Your task to perform on an android device: star an email in the gmail app Image 0: 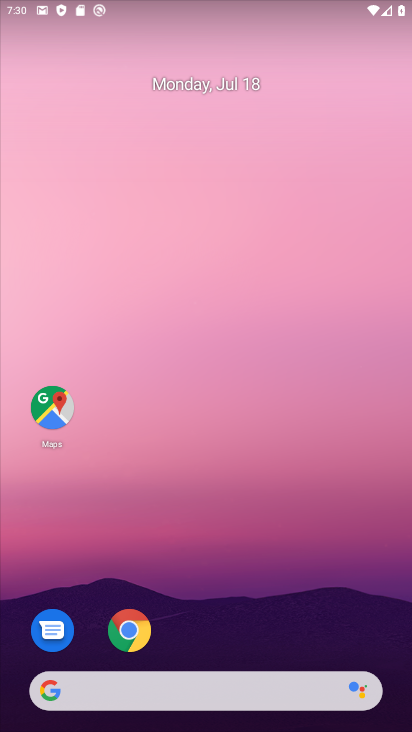
Step 0: drag from (217, 711) to (188, 212)
Your task to perform on an android device: star an email in the gmail app Image 1: 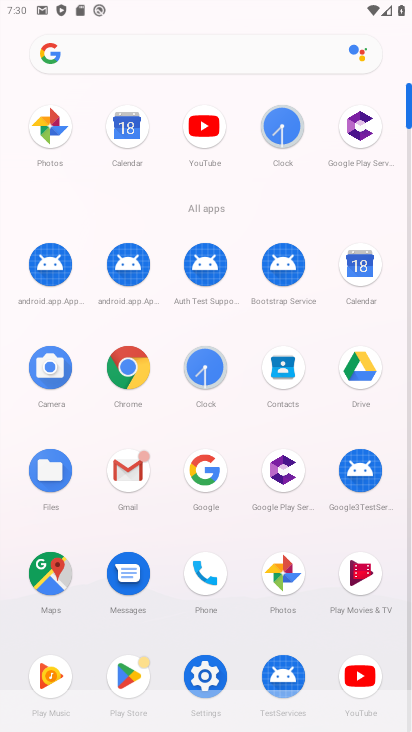
Step 1: click (124, 467)
Your task to perform on an android device: star an email in the gmail app Image 2: 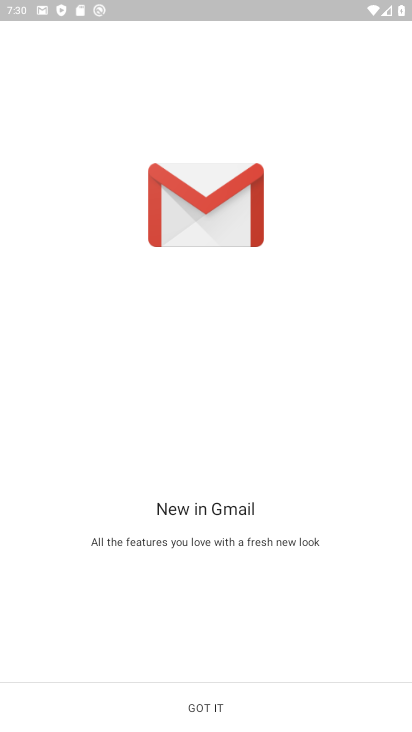
Step 2: click (250, 693)
Your task to perform on an android device: star an email in the gmail app Image 3: 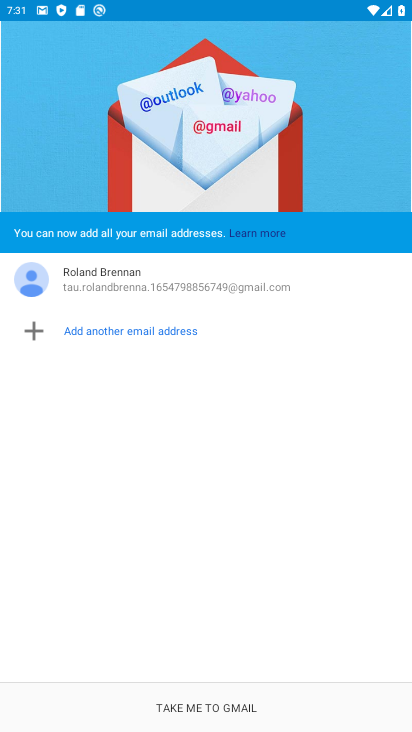
Step 3: click (236, 701)
Your task to perform on an android device: star an email in the gmail app Image 4: 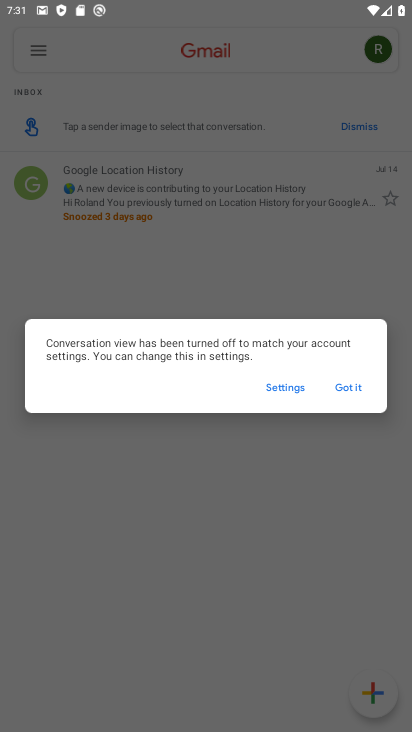
Step 4: click (364, 398)
Your task to perform on an android device: star an email in the gmail app Image 5: 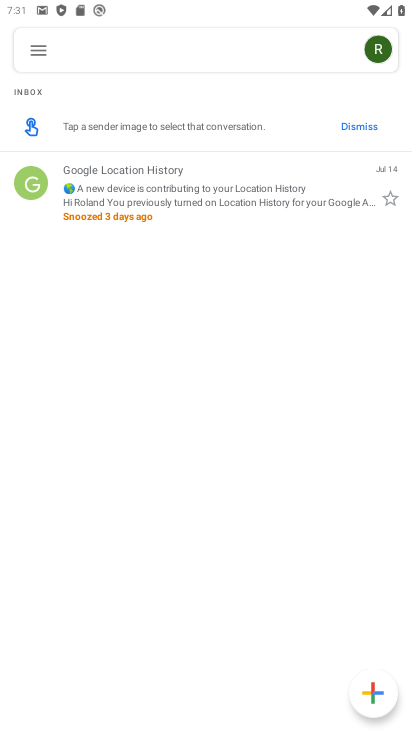
Step 5: click (396, 195)
Your task to perform on an android device: star an email in the gmail app Image 6: 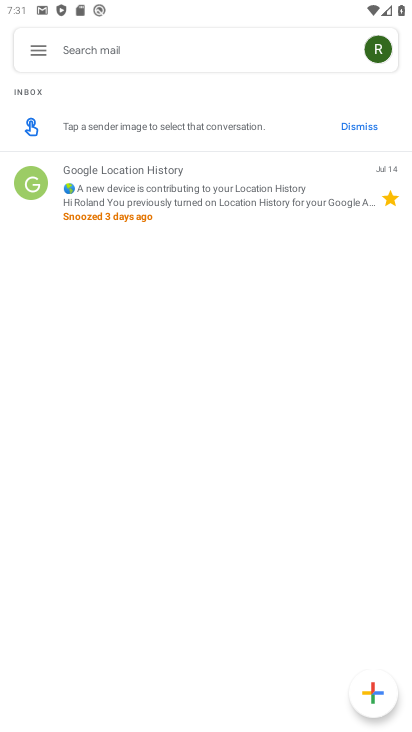
Step 6: task complete